Your task to perform on an android device: create a new album in the google photos Image 0: 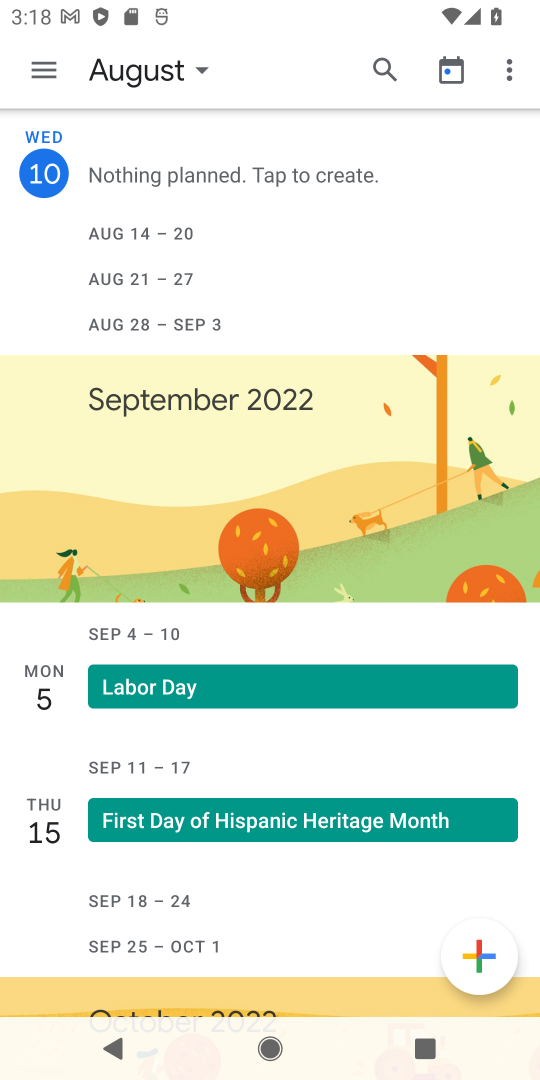
Step 0: press home button
Your task to perform on an android device: create a new album in the google photos Image 1: 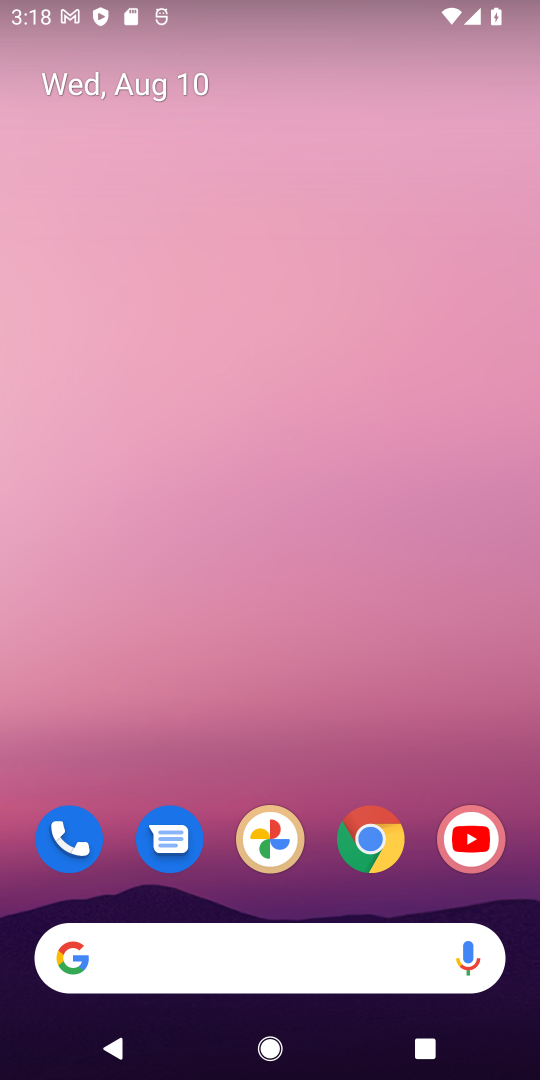
Step 1: click (272, 834)
Your task to perform on an android device: create a new album in the google photos Image 2: 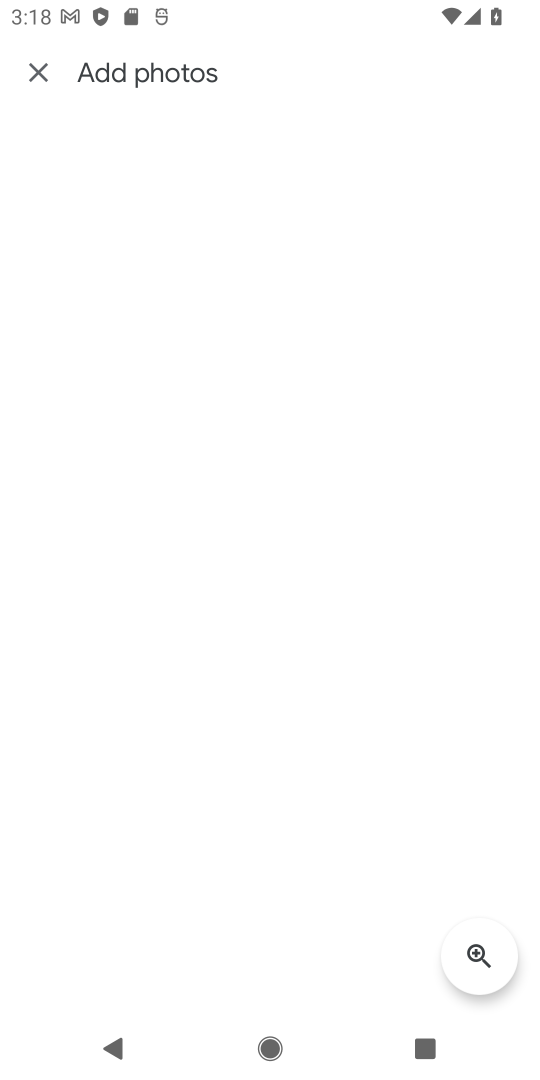
Step 2: press back button
Your task to perform on an android device: create a new album in the google photos Image 3: 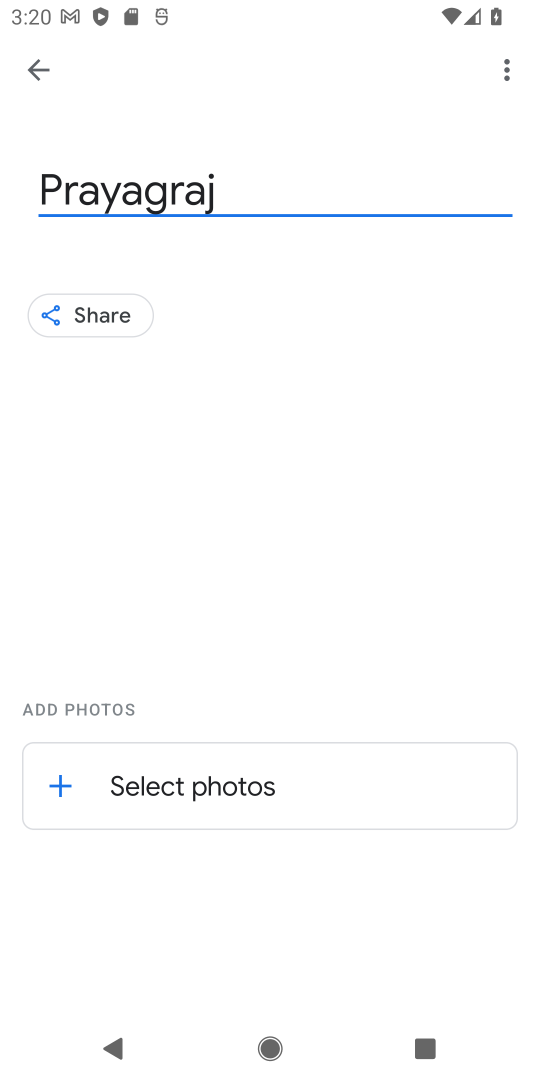
Step 3: click (59, 780)
Your task to perform on an android device: create a new album in the google photos Image 4: 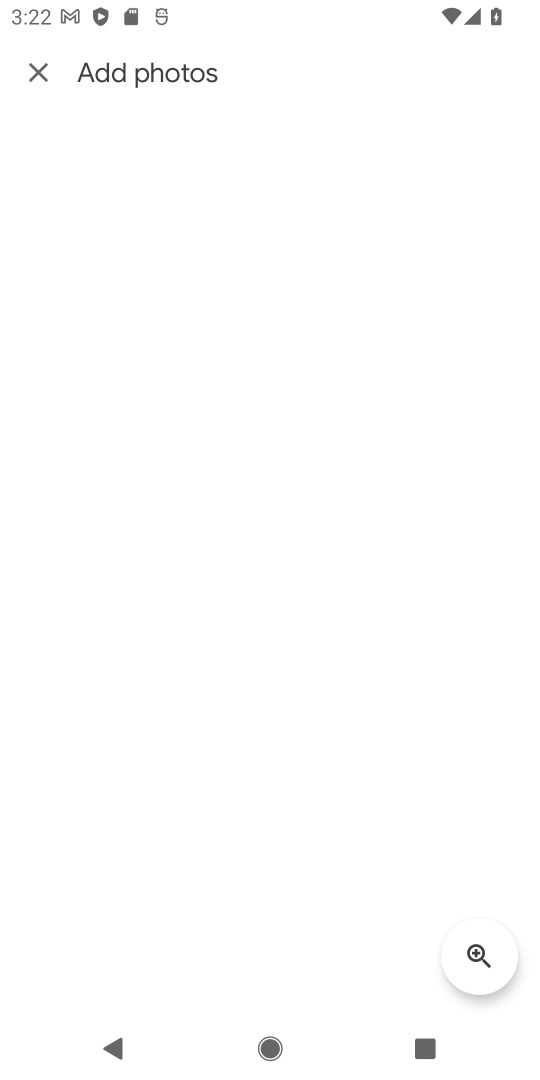
Step 4: task complete